Your task to perform on an android device: Is it going to rain this weekend? Image 0: 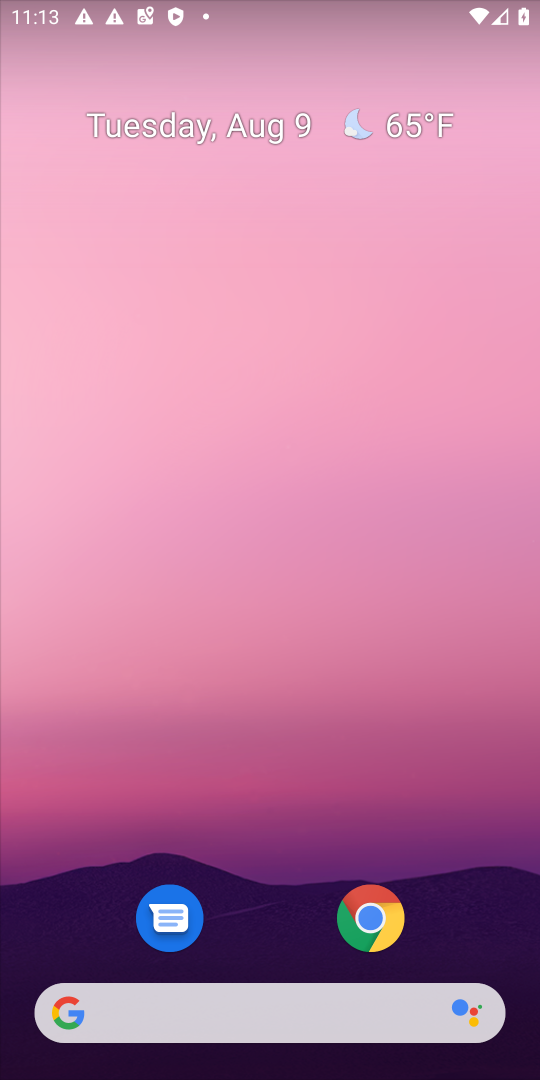
Step 0: click (424, 119)
Your task to perform on an android device: Is it going to rain this weekend? Image 1: 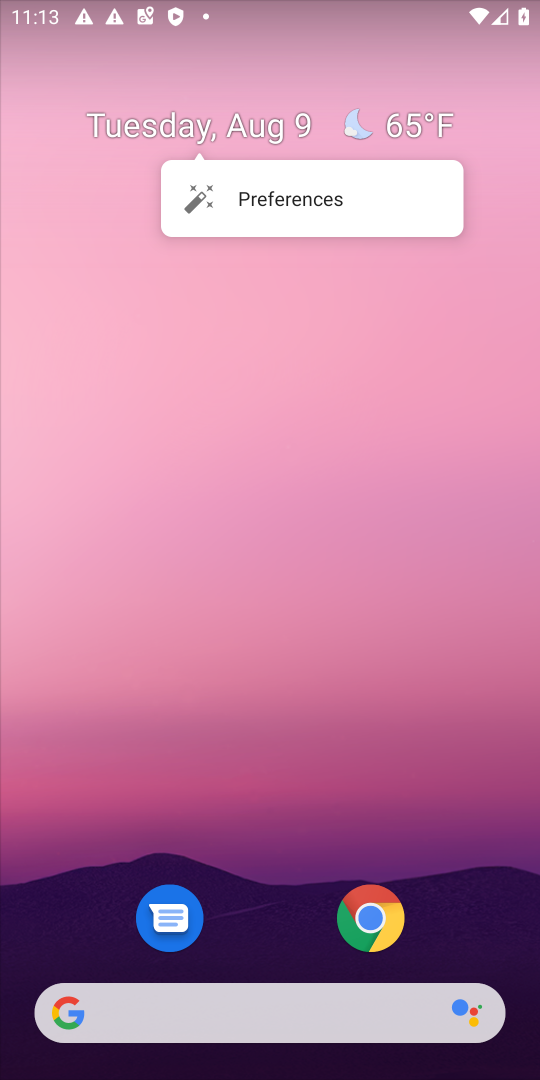
Step 1: click (404, 126)
Your task to perform on an android device: Is it going to rain this weekend? Image 2: 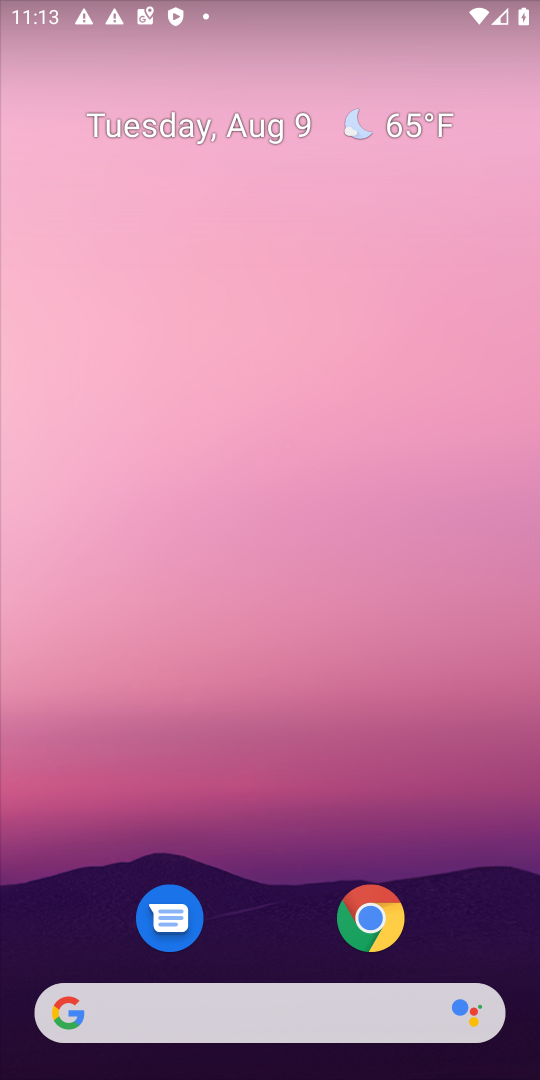
Step 2: click (422, 126)
Your task to perform on an android device: Is it going to rain this weekend? Image 3: 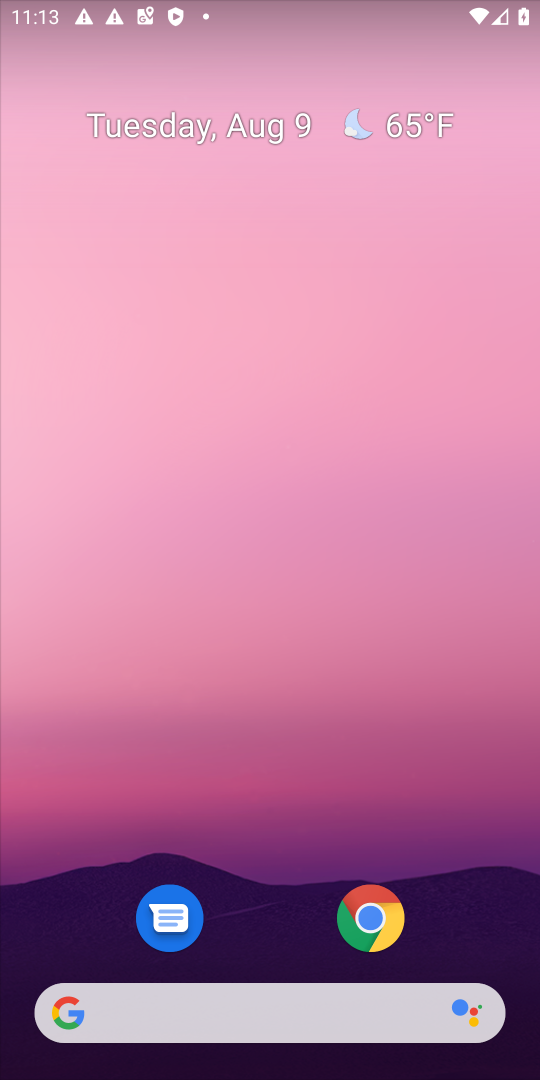
Step 3: click (413, 127)
Your task to perform on an android device: Is it going to rain this weekend? Image 4: 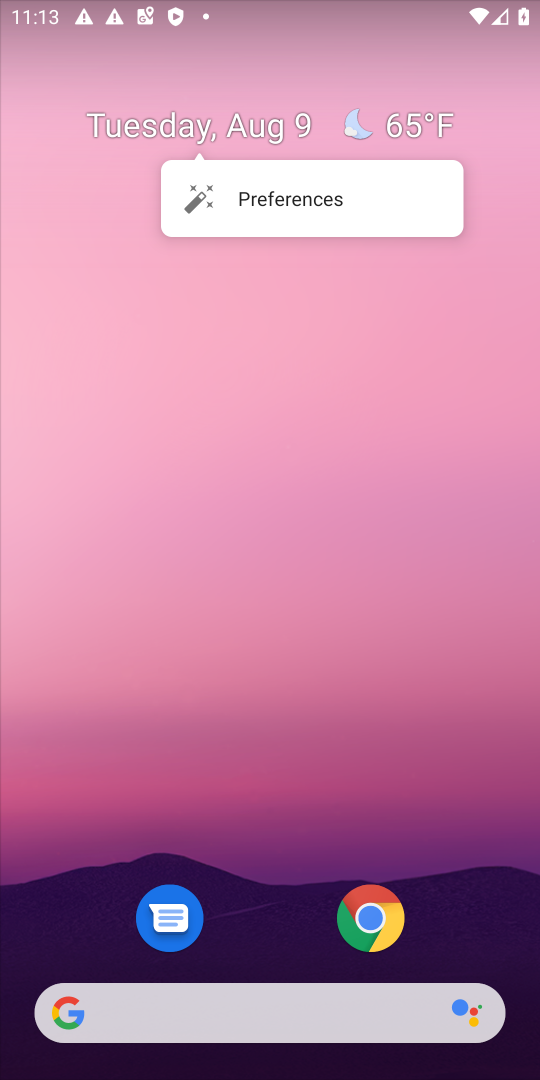
Step 4: click (408, 122)
Your task to perform on an android device: Is it going to rain this weekend? Image 5: 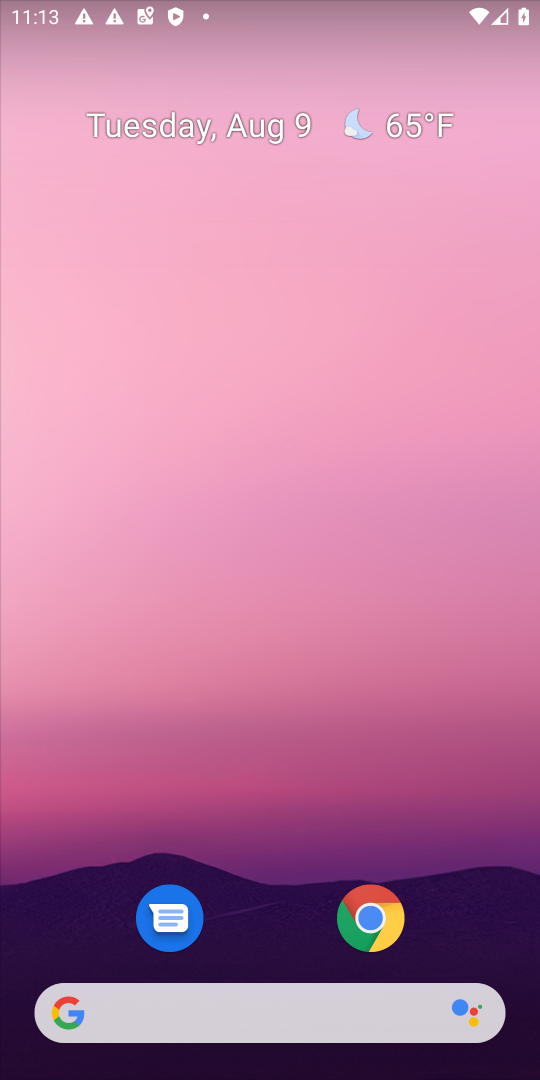
Step 5: click (408, 122)
Your task to perform on an android device: Is it going to rain this weekend? Image 6: 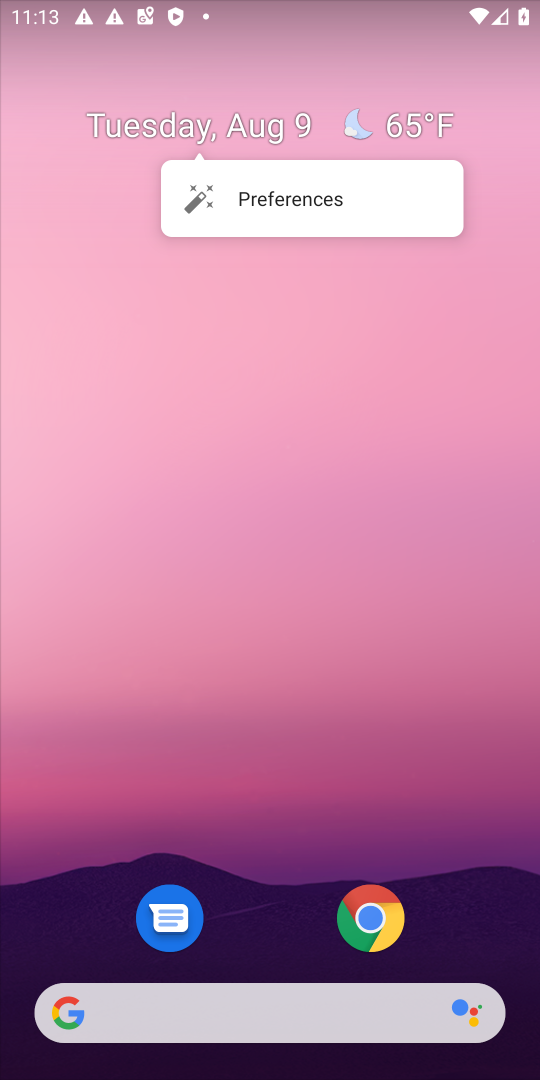
Step 6: click (300, 700)
Your task to perform on an android device: Is it going to rain this weekend? Image 7: 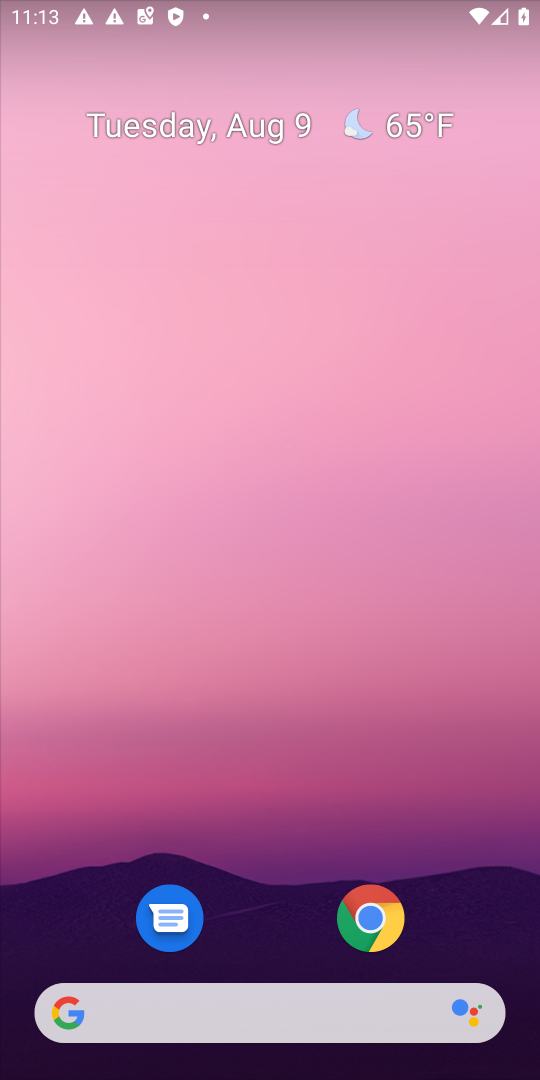
Step 7: drag from (237, 836) to (312, 213)
Your task to perform on an android device: Is it going to rain this weekend? Image 8: 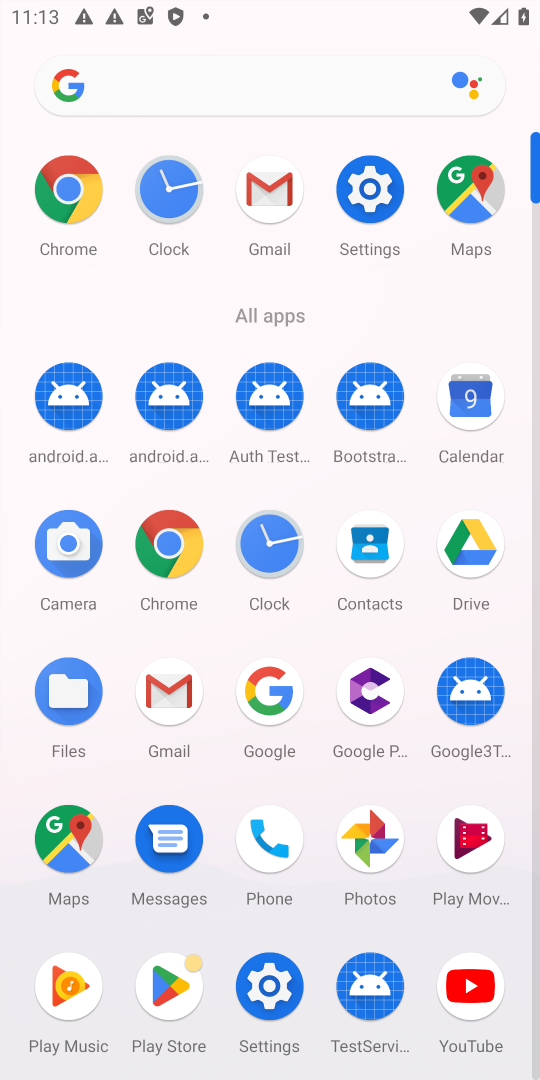
Step 8: click (176, 551)
Your task to perform on an android device: Is it going to rain this weekend? Image 9: 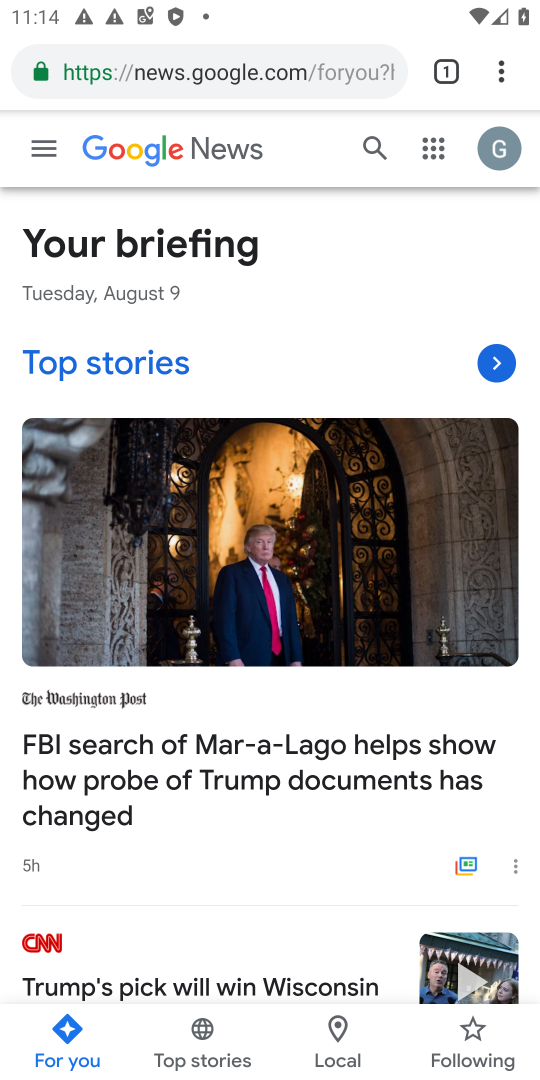
Step 9: click (260, 64)
Your task to perform on an android device: Is it going to rain this weekend? Image 10: 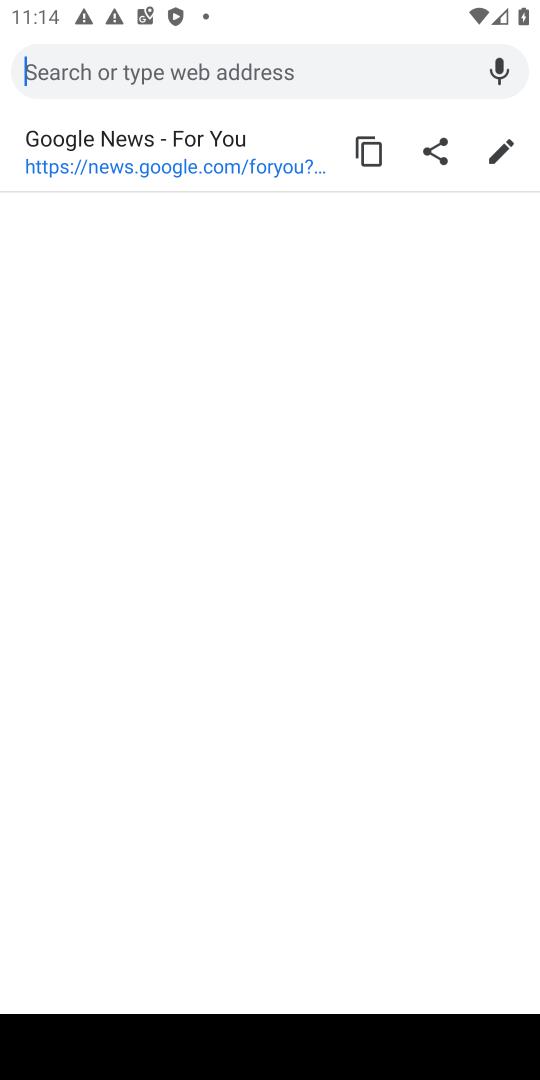
Step 10: type "weather"
Your task to perform on an android device: Is it going to rain this weekend? Image 11: 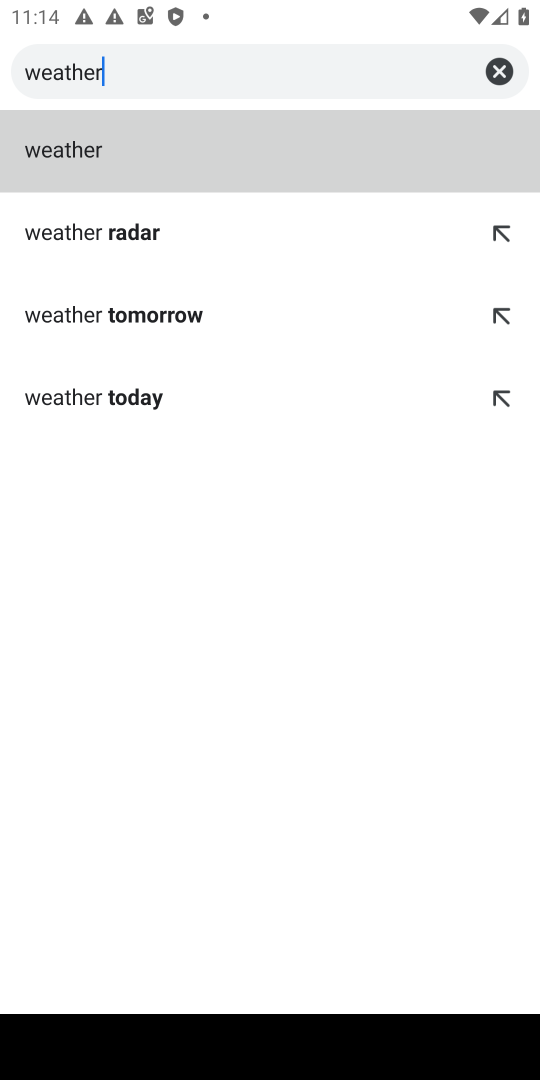
Step 11: click (135, 163)
Your task to perform on an android device: Is it going to rain this weekend? Image 12: 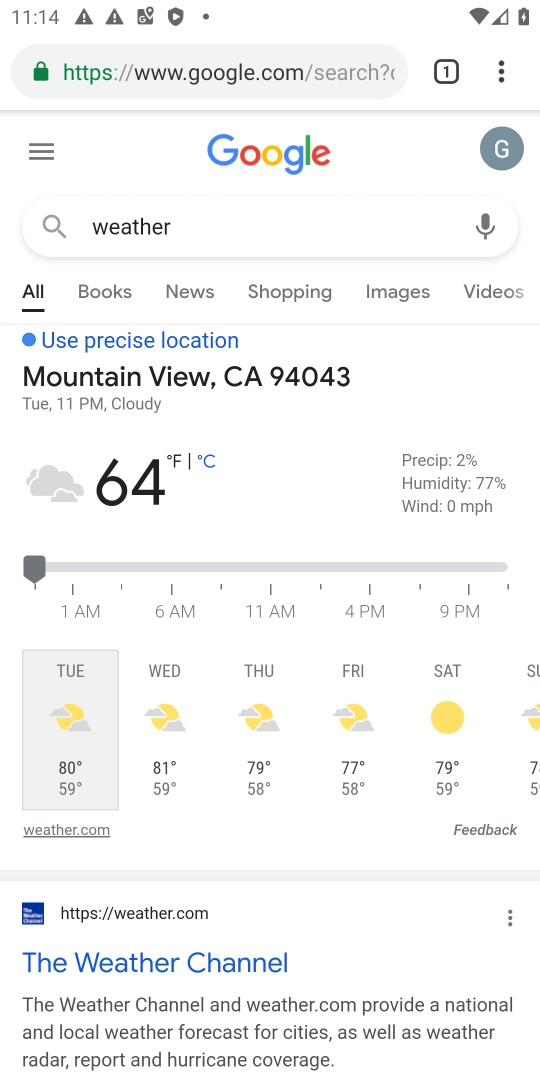
Step 12: click (444, 726)
Your task to perform on an android device: Is it going to rain this weekend? Image 13: 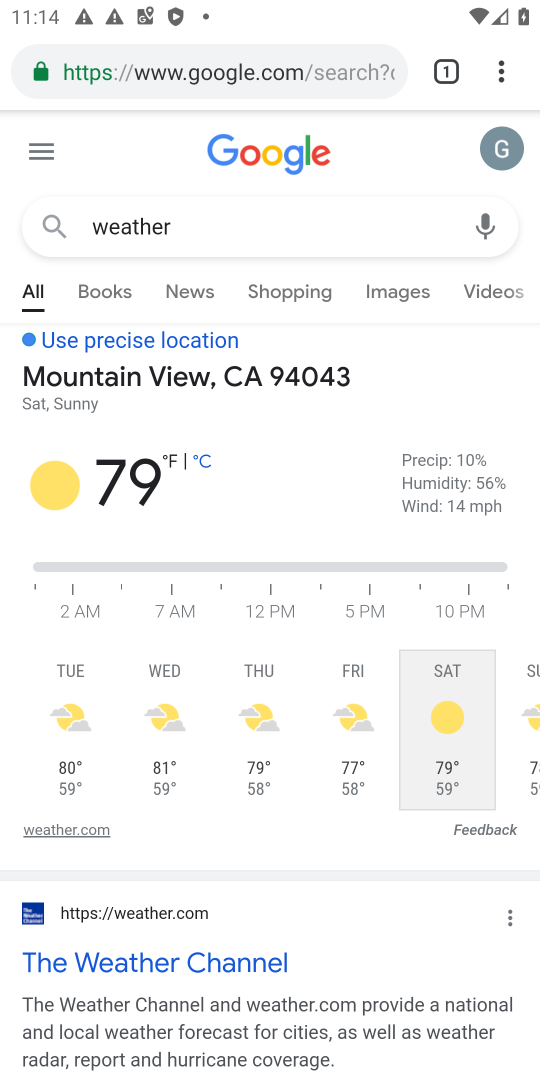
Step 13: task complete